Your task to perform on an android device: Open calendar and show me the third week of next month Image 0: 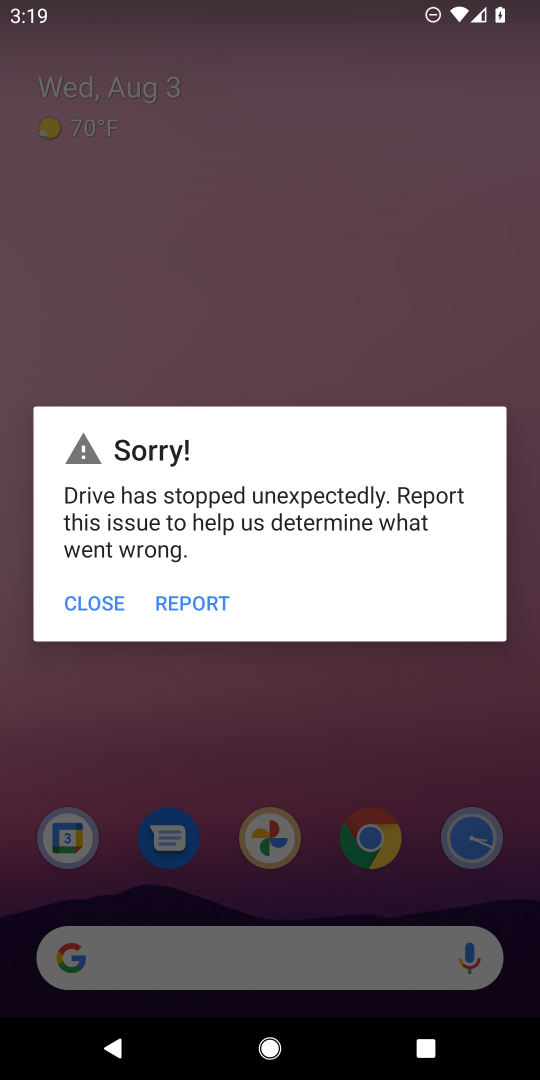
Step 0: press home button
Your task to perform on an android device: Open calendar and show me the third week of next month Image 1: 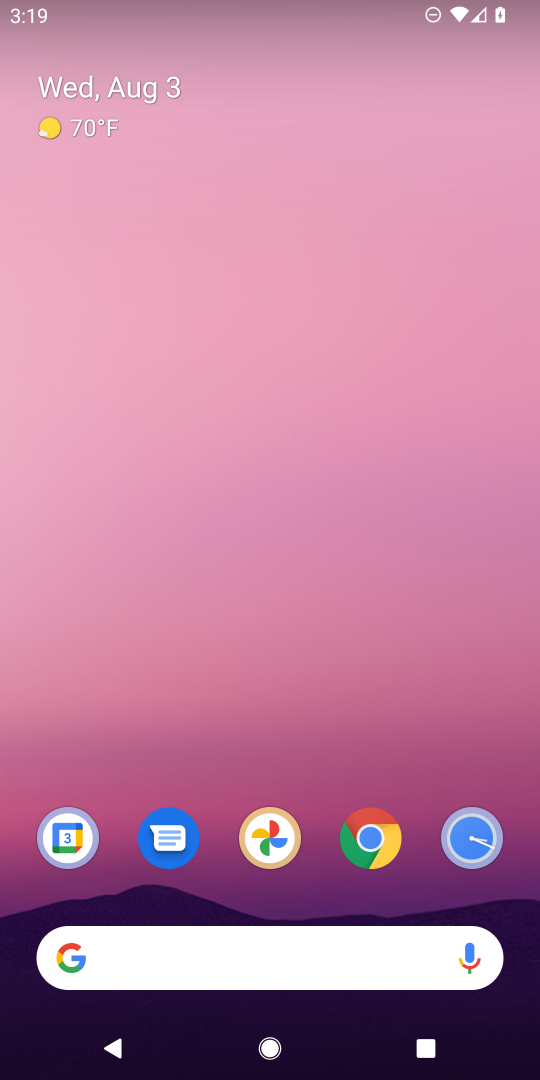
Step 1: click (57, 837)
Your task to perform on an android device: Open calendar and show me the third week of next month Image 2: 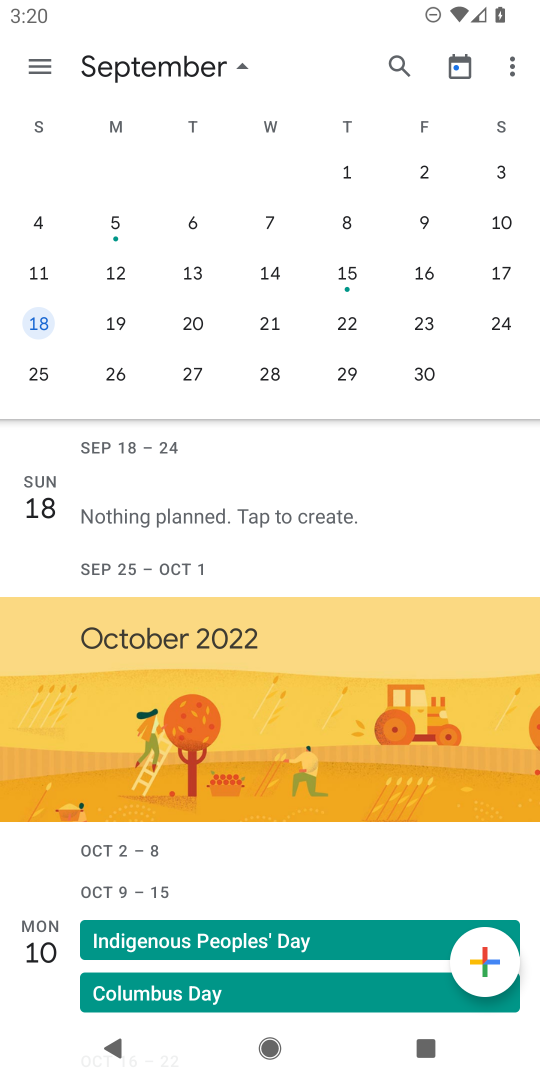
Step 2: click (46, 270)
Your task to perform on an android device: Open calendar and show me the third week of next month Image 3: 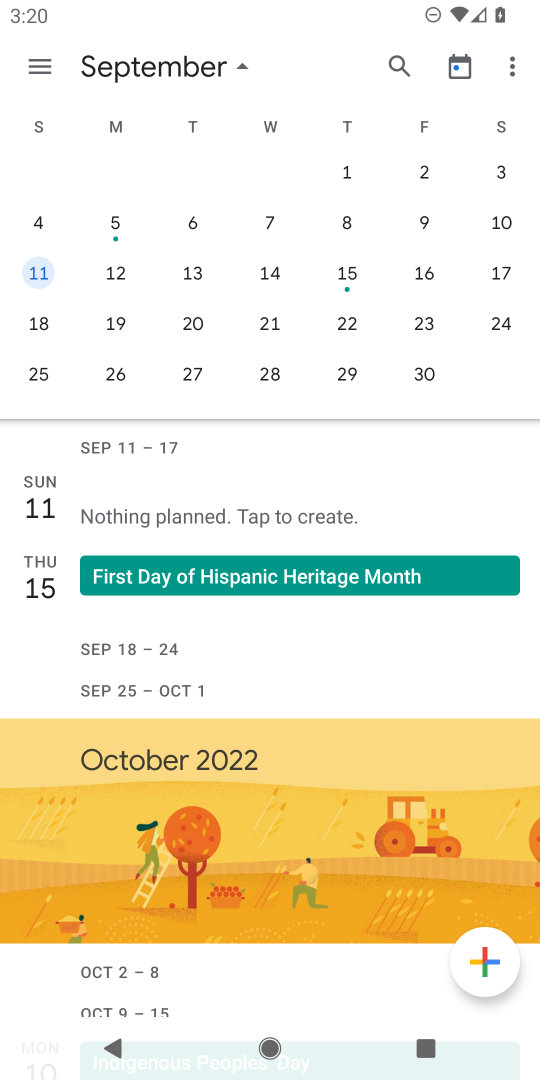
Step 3: task complete